Your task to perform on an android device: toggle notifications settings in the gmail app Image 0: 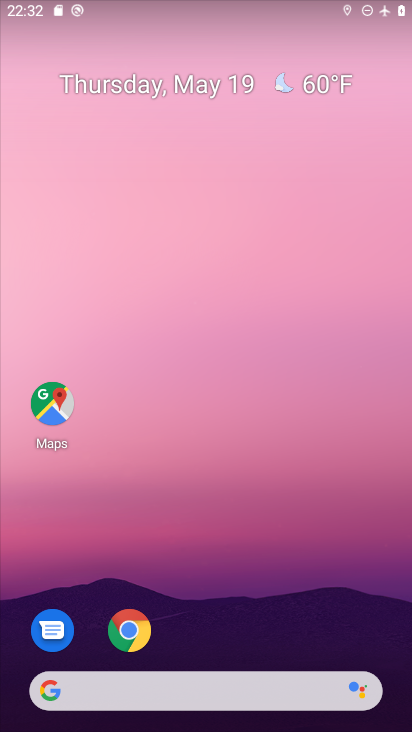
Step 0: drag from (238, 527) to (207, 105)
Your task to perform on an android device: toggle notifications settings in the gmail app Image 1: 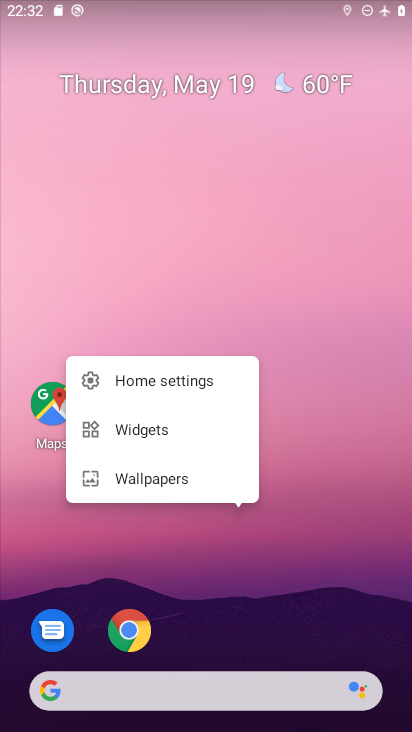
Step 1: click (263, 303)
Your task to perform on an android device: toggle notifications settings in the gmail app Image 2: 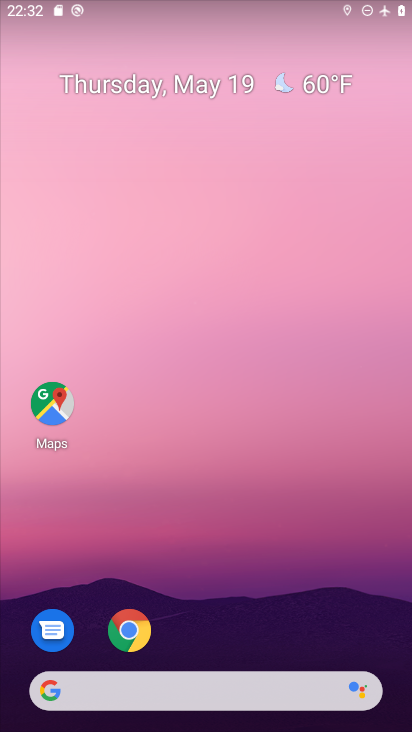
Step 2: drag from (238, 619) to (262, 12)
Your task to perform on an android device: toggle notifications settings in the gmail app Image 3: 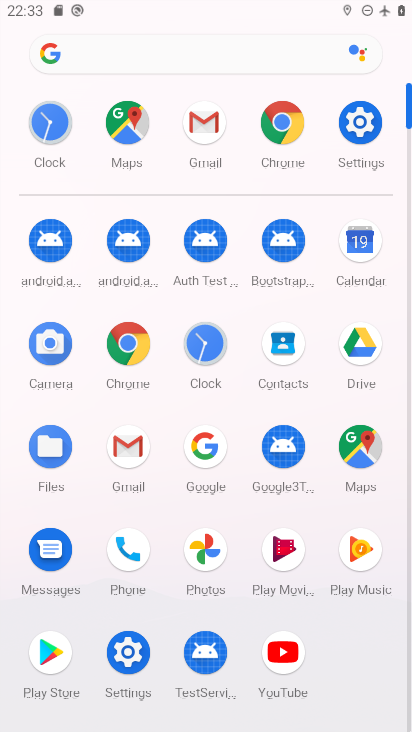
Step 3: click (198, 128)
Your task to perform on an android device: toggle notifications settings in the gmail app Image 4: 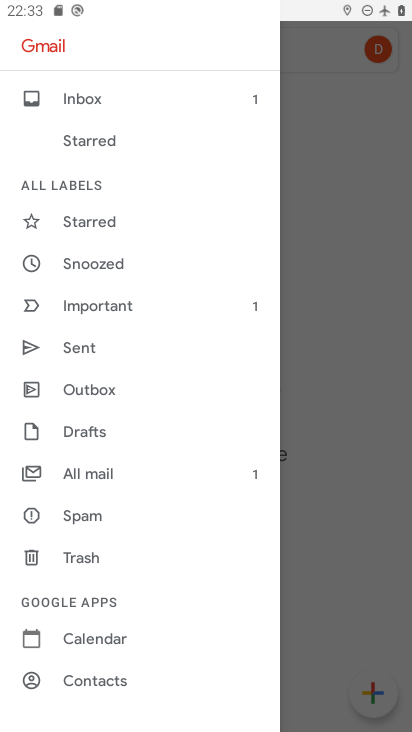
Step 4: drag from (150, 582) to (167, 138)
Your task to perform on an android device: toggle notifications settings in the gmail app Image 5: 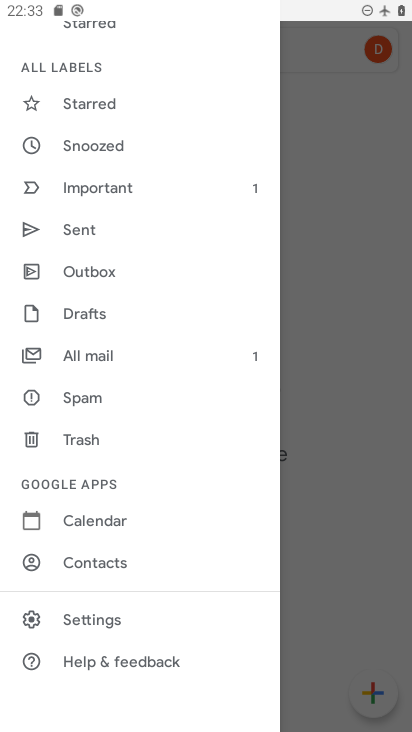
Step 5: click (103, 618)
Your task to perform on an android device: toggle notifications settings in the gmail app Image 6: 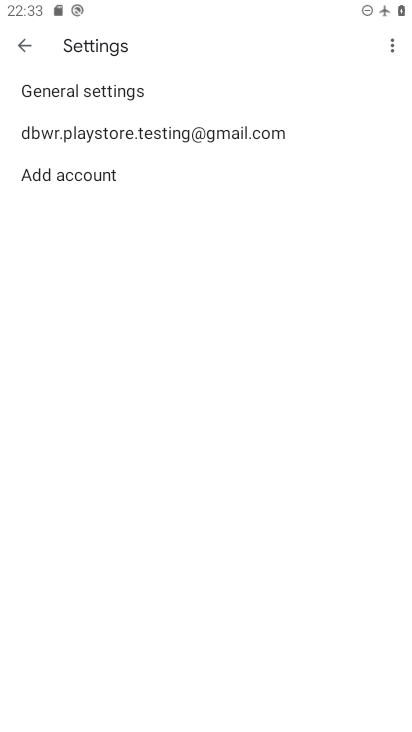
Step 6: click (69, 88)
Your task to perform on an android device: toggle notifications settings in the gmail app Image 7: 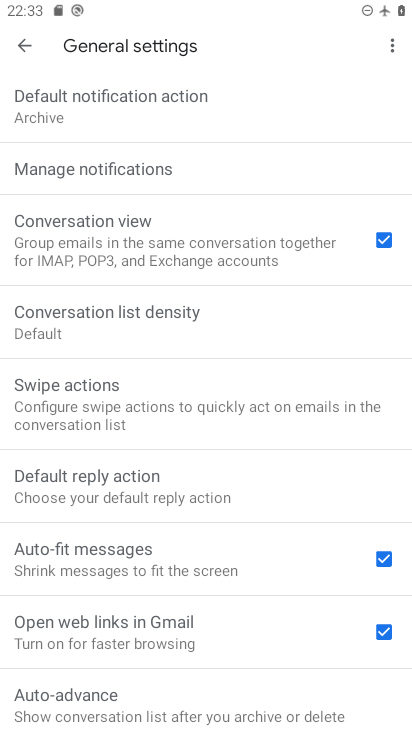
Step 7: click (101, 165)
Your task to perform on an android device: toggle notifications settings in the gmail app Image 8: 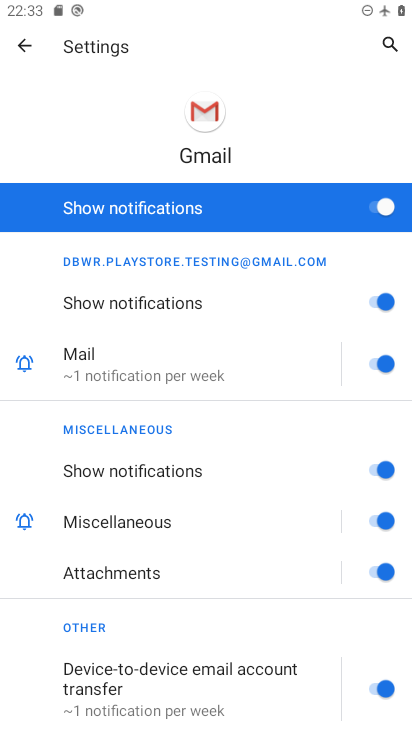
Step 8: click (378, 203)
Your task to perform on an android device: toggle notifications settings in the gmail app Image 9: 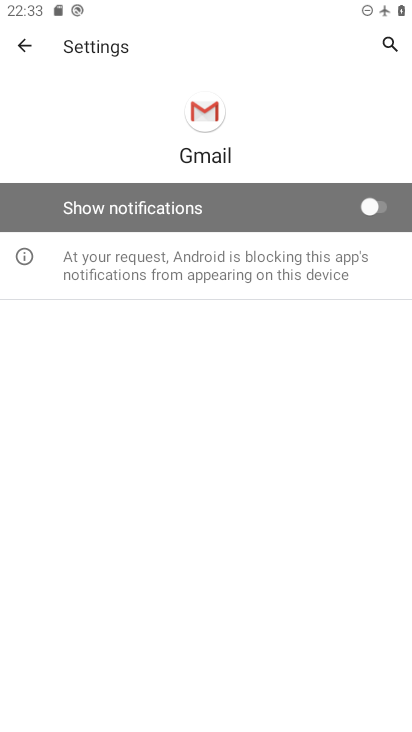
Step 9: task complete